Your task to perform on an android device: Go to CNN.com Image 0: 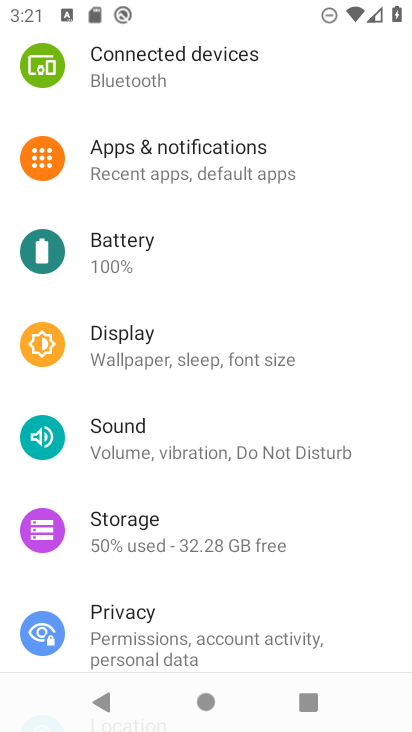
Step 0: press home button
Your task to perform on an android device: Go to CNN.com Image 1: 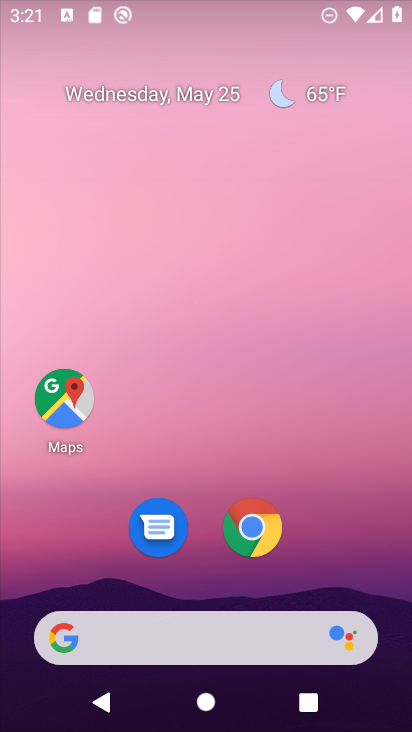
Step 1: drag from (320, 627) to (348, 17)
Your task to perform on an android device: Go to CNN.com Image 2: 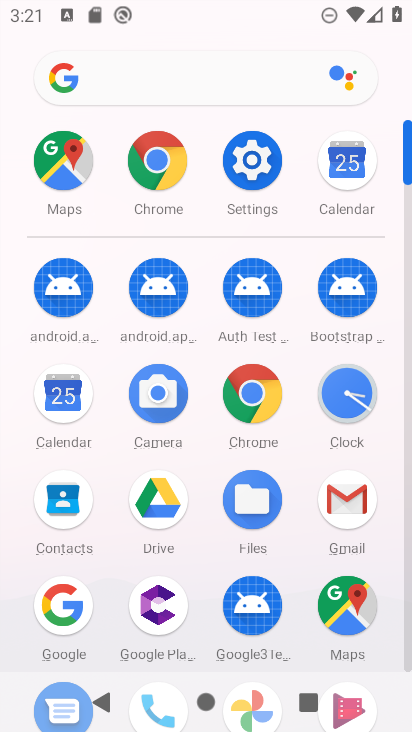
Step 2: click (262, 396)
Your task to perform on an android device: Go to CNN.com Image 3: 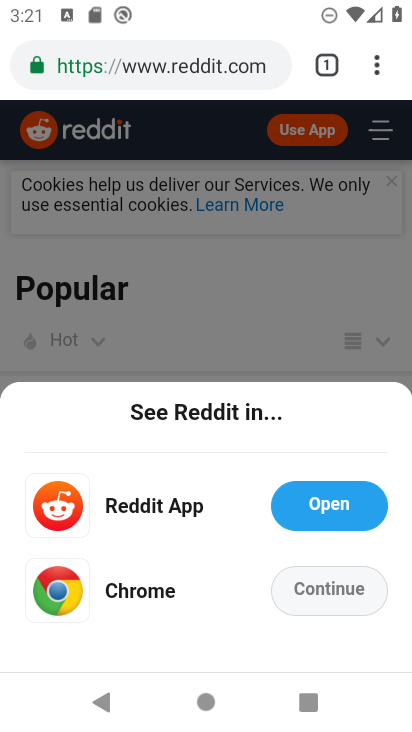
Step 3: click (255, 75)
Your task to perform on an android device: Go to CNN.com Image 4: 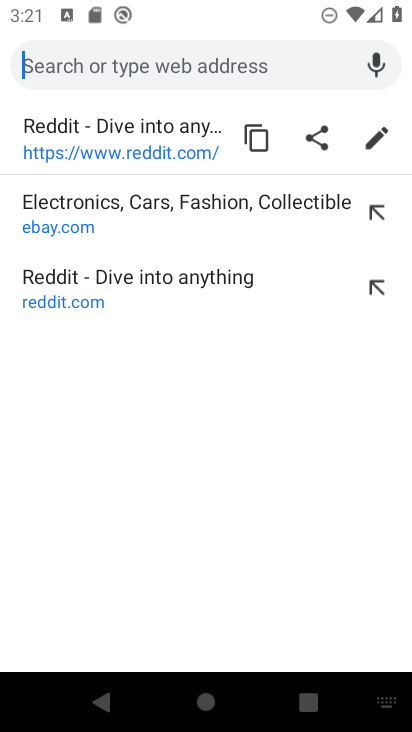
Step 4: type "cnn.com"
Your task to perform on an android device: Go to CNN.com Image 5: 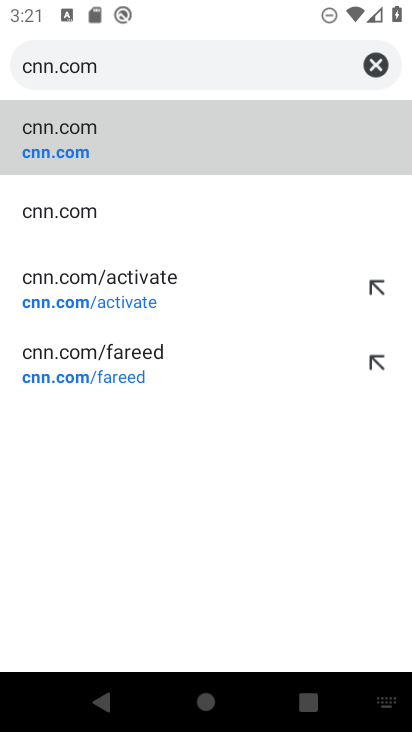
Step 5: click (246, 147)
Your task to perform on an android device: Go to CNN.com Image 6: 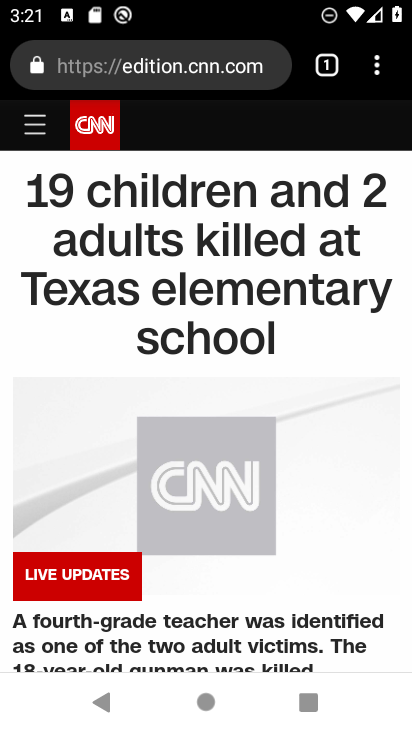
Step 6: task complete